Your task to perform on an android device: Is it going to rain this weekend? Image 0: 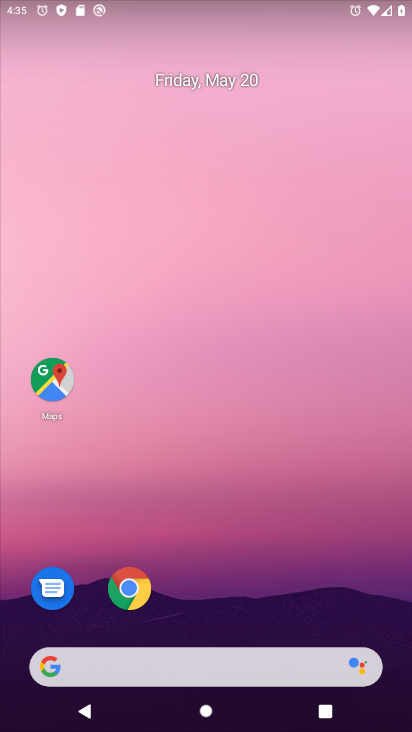
Step 0: drag from (224, 603) to (192, 55)
Your task to perform on an android device: Is it going to rain this weekend? Image 1: 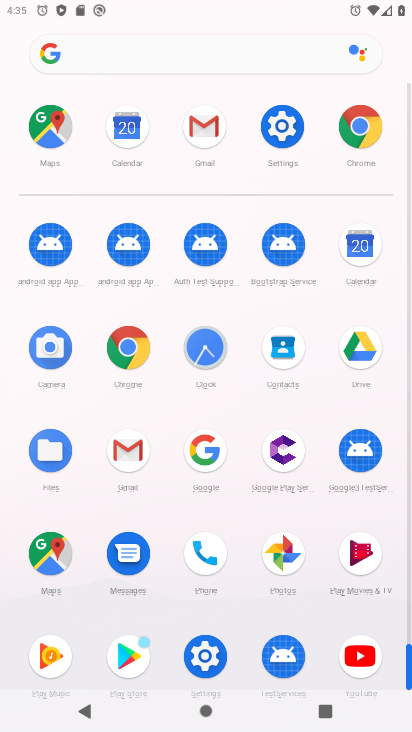
Step 1: click (124, 354)
Your task to perform on an android device: Is it going to rain this weekend? Image 2: 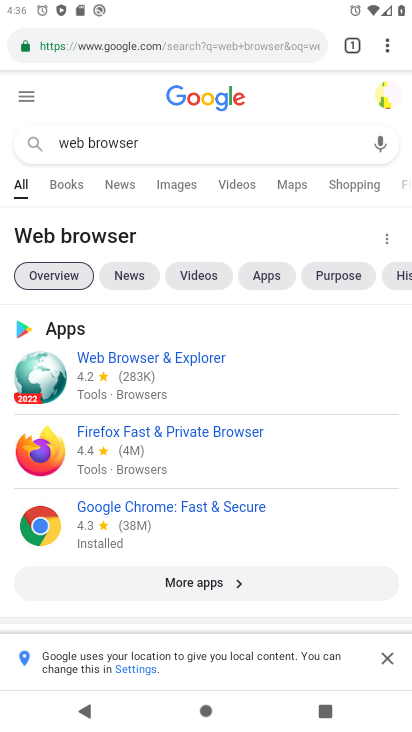
Step 2: click (201, 38)
Your task to perform on an android device: Is it going to rain this weekend? Image 3: 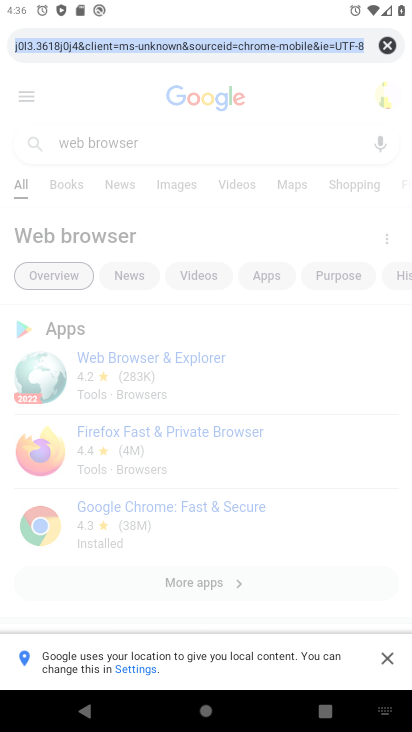
Step 3: press home button
Your task to perform on an android device: Is it going to rain this weekend? Image 4: 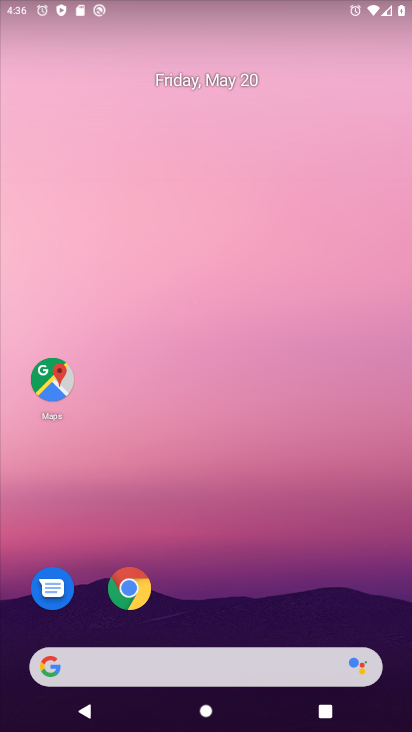
Step 4: click (115, 590)
Your task to perform on an android device: Is it going to rain this weekend? Image 5: 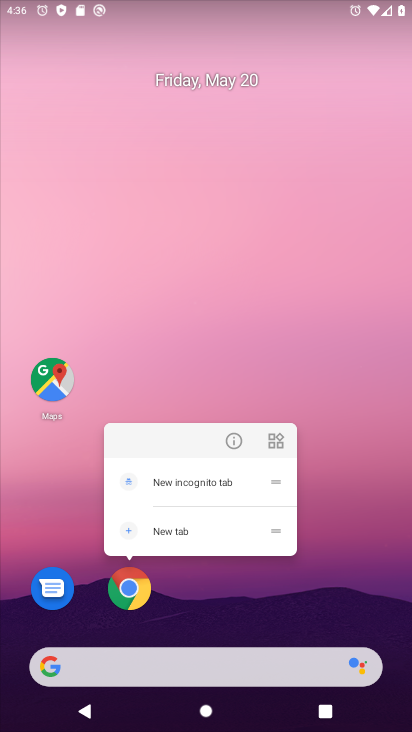
Step 5: drag from (227, 624) to (210, 103)
Your task to perform on an android device: Is it going to rain this weekend? Image 6: 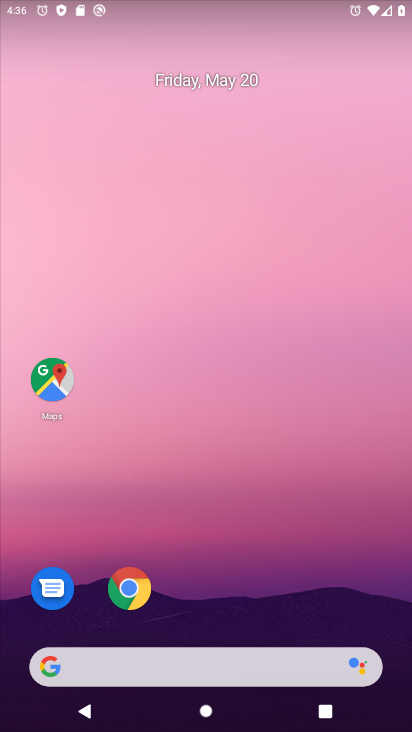
Step 6: drag from (257, 623) to (228, 111)
Your task to perform on an android device: Is it going to rain this weekend? Image 7: 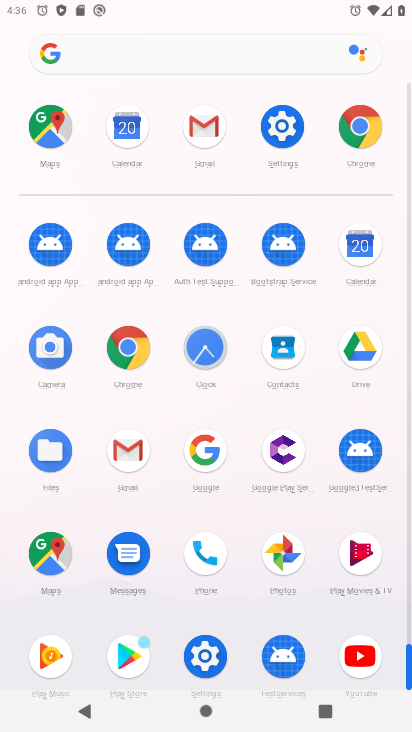
Step 7: click (126, 332)
Your task to perform on an android device: Is it going to rain this weekend? Image 8: 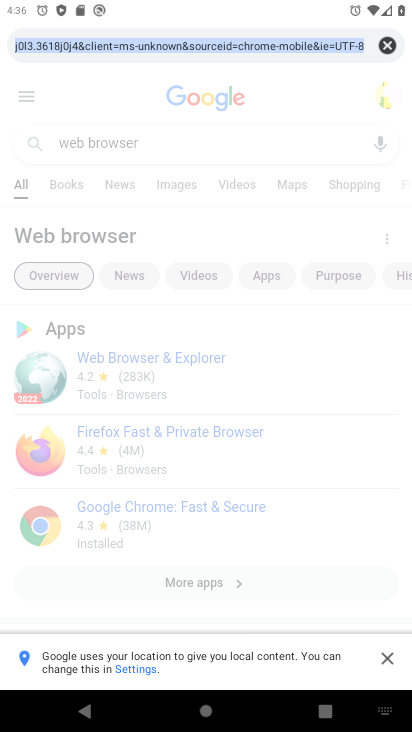
Step 8: click (384, 42)
Your task to perform on an android device: Is it going to rain this weekend? Image 9: 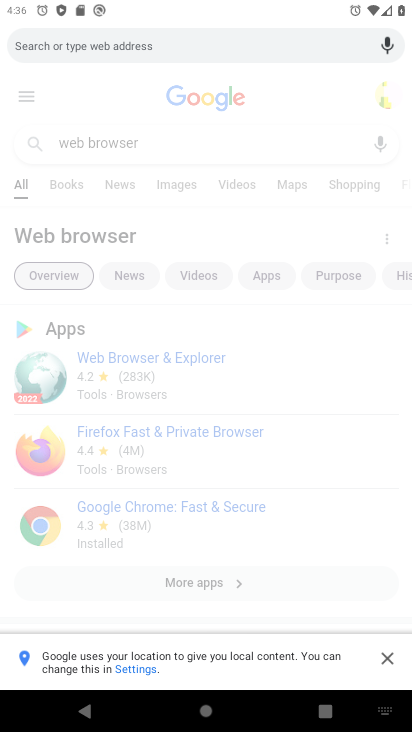
Step 9: type "Is it going to rain this weekend?"
Your task to perform on an android device: Is it going to rain this weekend? Image 10: 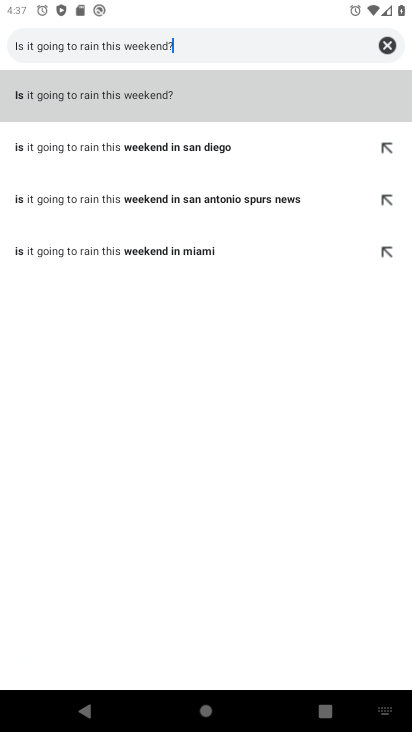
Step 10: click (86, 92)
Your task to perform on an android device: Is it going to rain this weekend? Image 11: 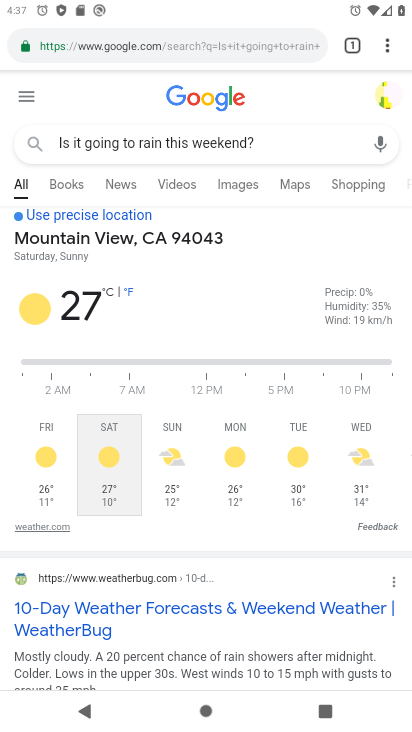
Step 11: task complete